Your task to perform on an android device: Turn off the flashlight Image 0: 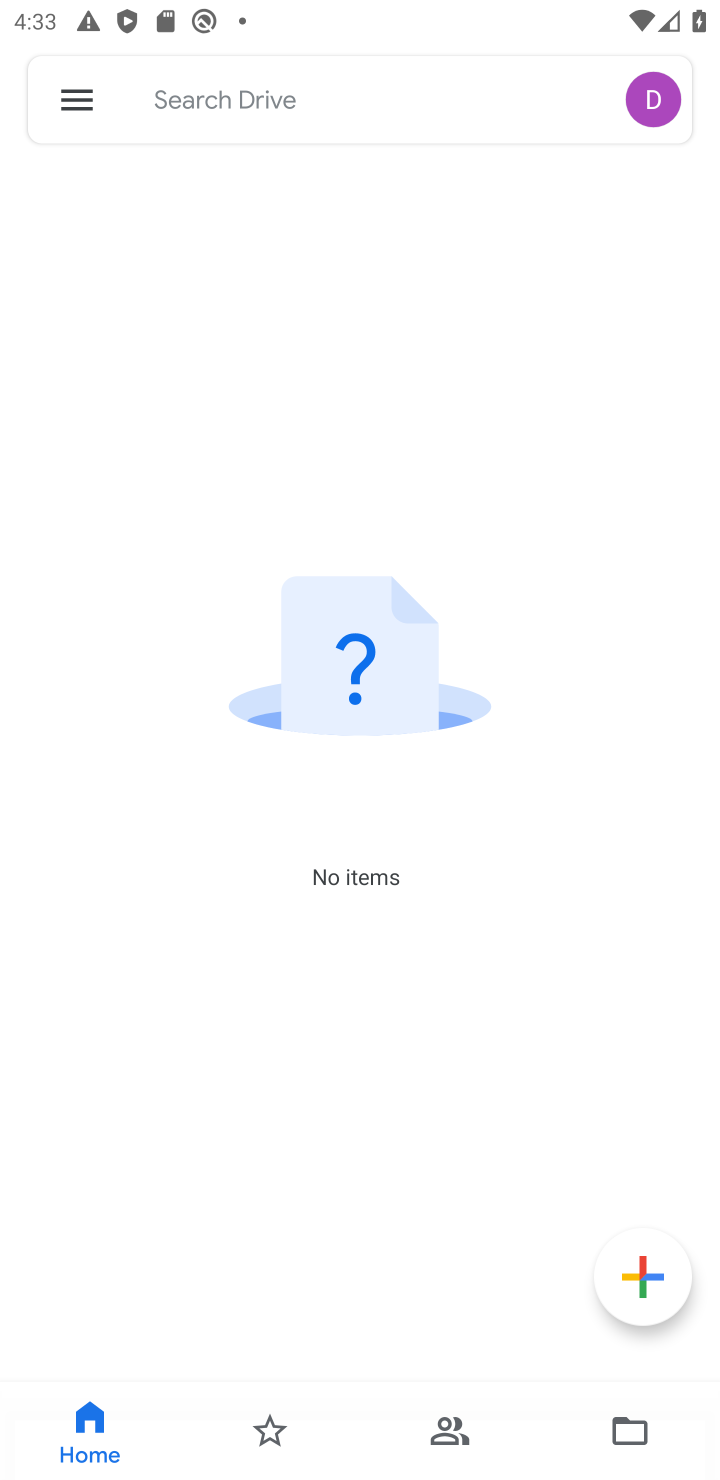
Step 0: drag from (397, 14) to (248, 886)
Your task to perform on an android device: Turn off the flashlight Image 1: 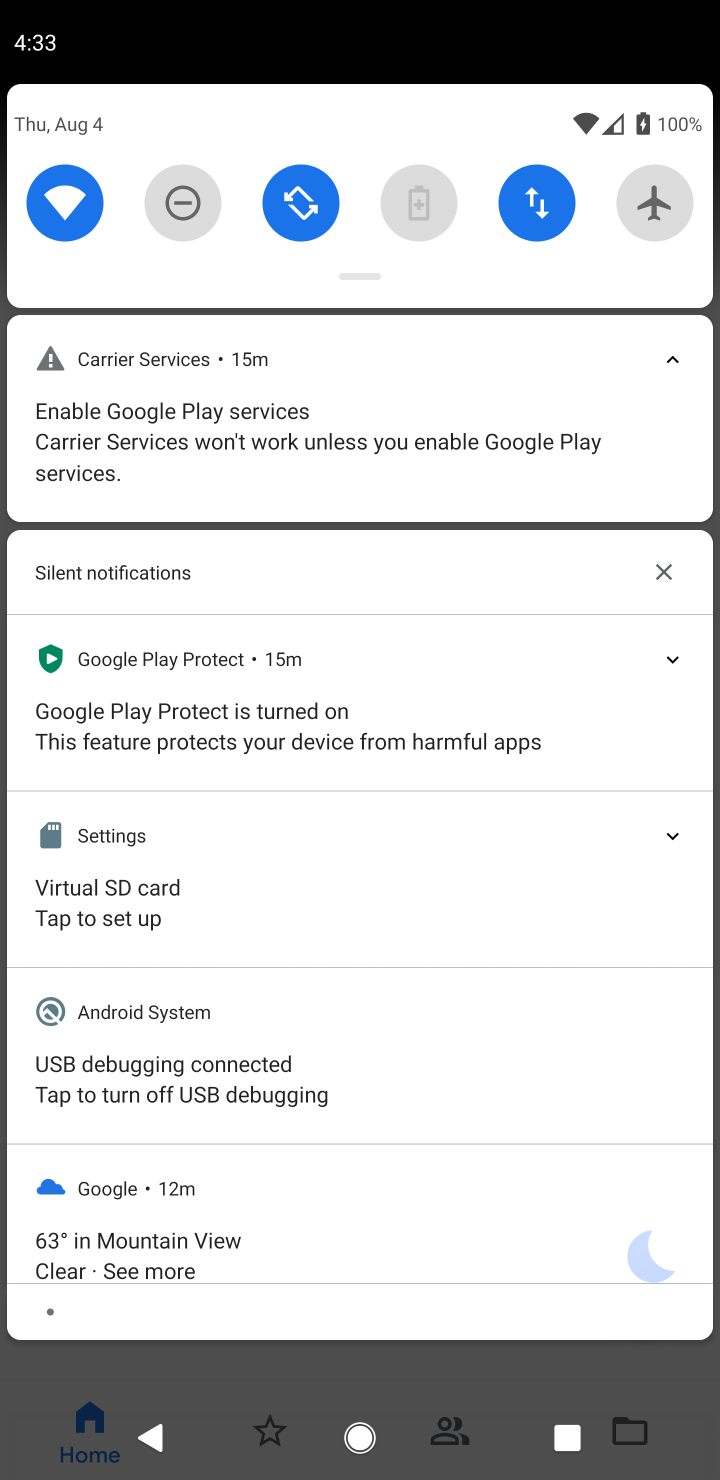
Step 1: drag from (477, 236) to (344, 913)
Your task to perform on an android device: Turn off the flashlight Image 2: 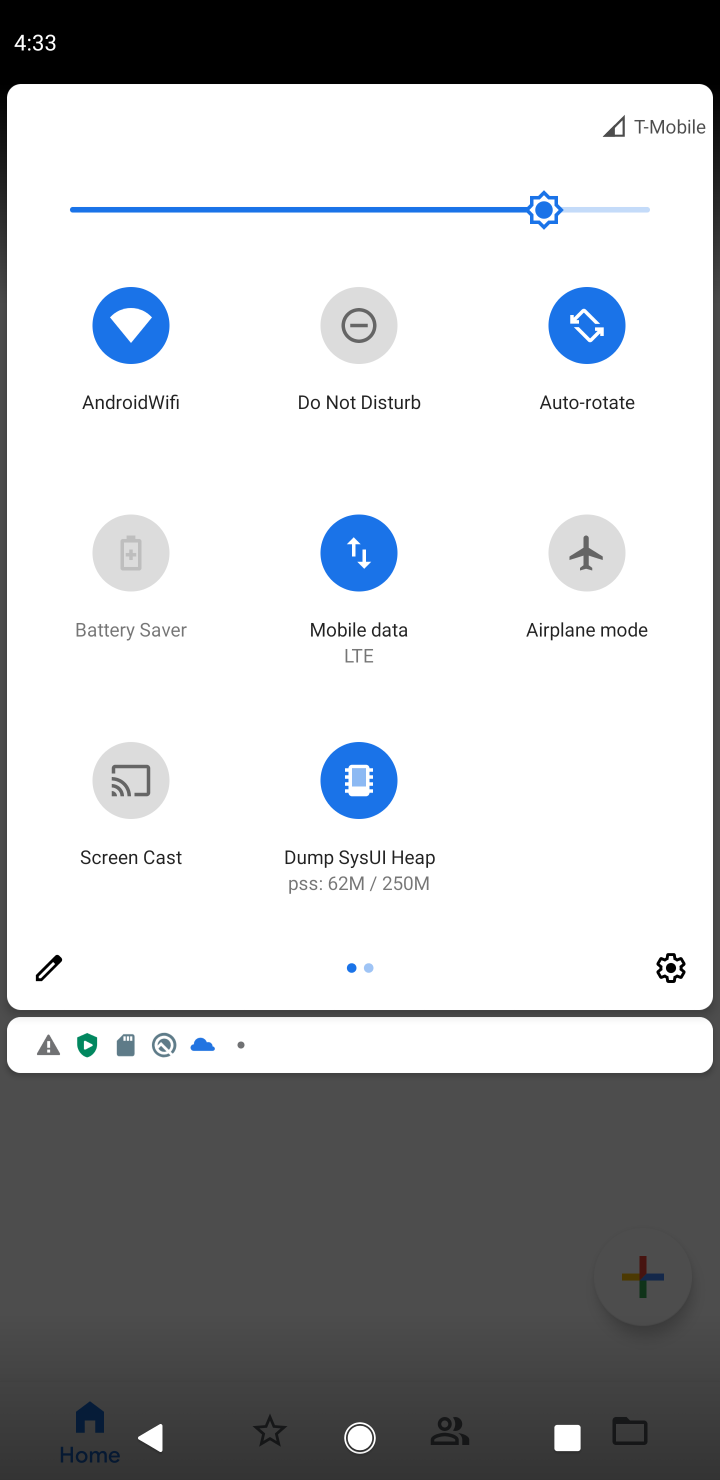
Step 2: click (41, 969)
Your task to perform on an android device: Turn off the flashlight Image 3: 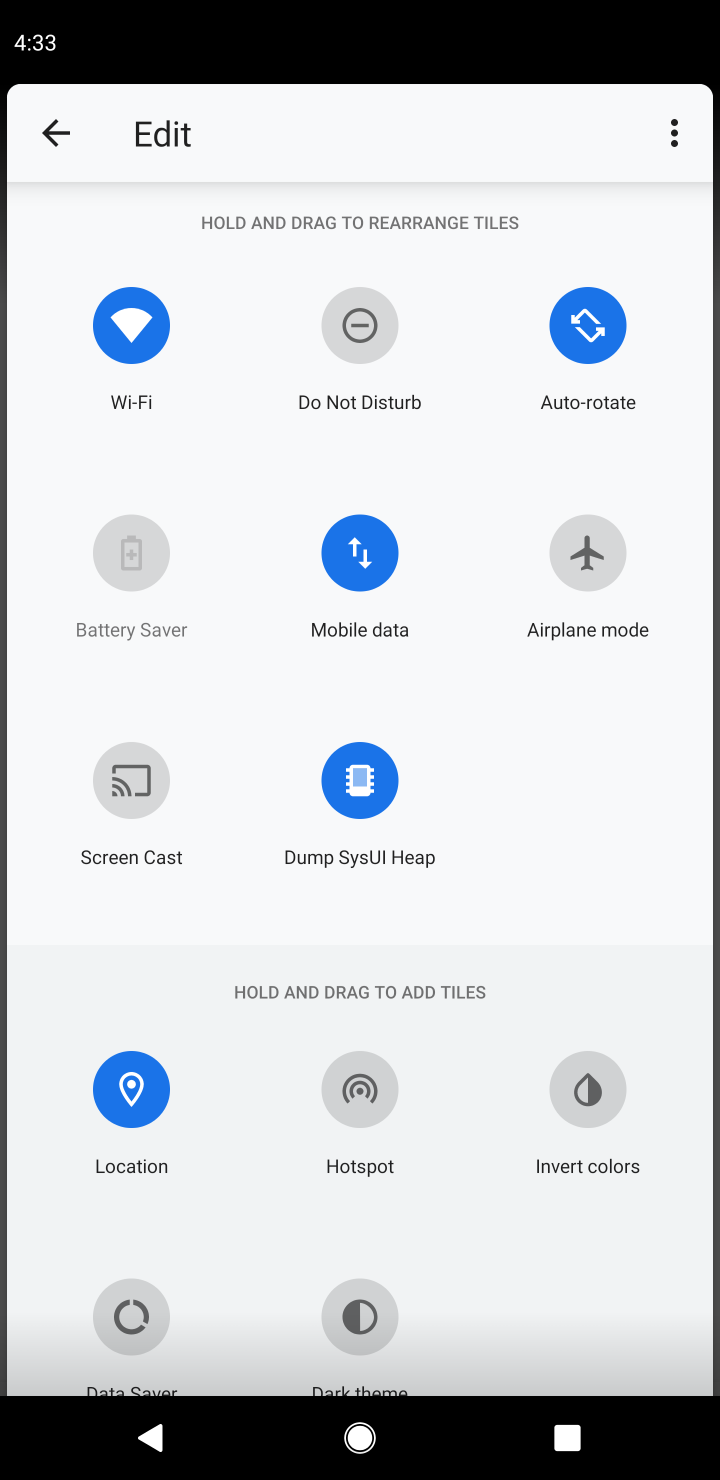
Step 3: task complete